Your task to perform on an android device: change notifications settings Image 0: 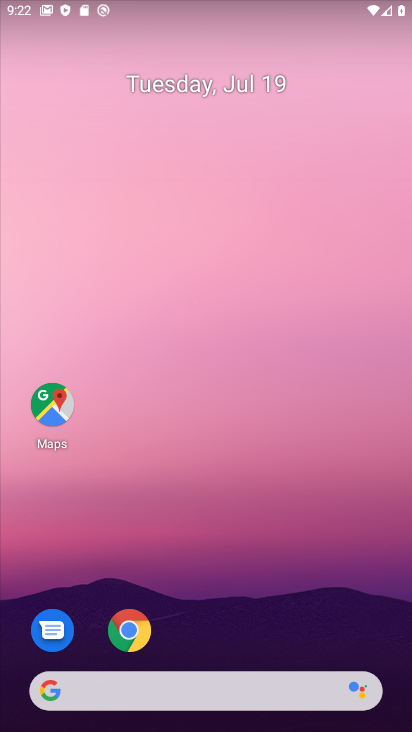
Step 0: drag from (237, 645) to (202, 9)
Your task to perform on an android device: change notifications settings Image 1: 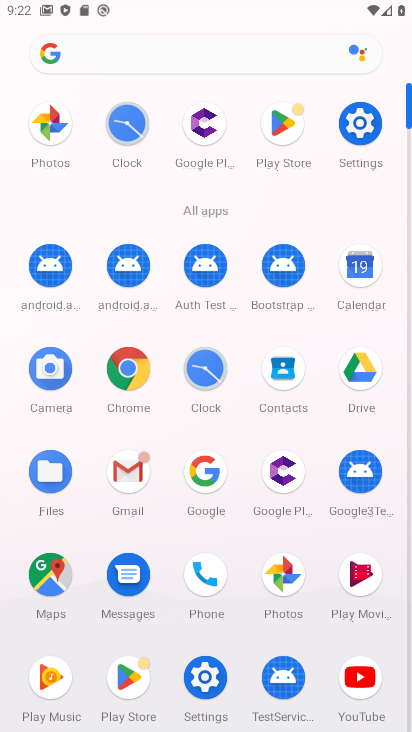
Step 1: click (203, 681)
Your task to perform on an android device: change notifications settings Image 2: 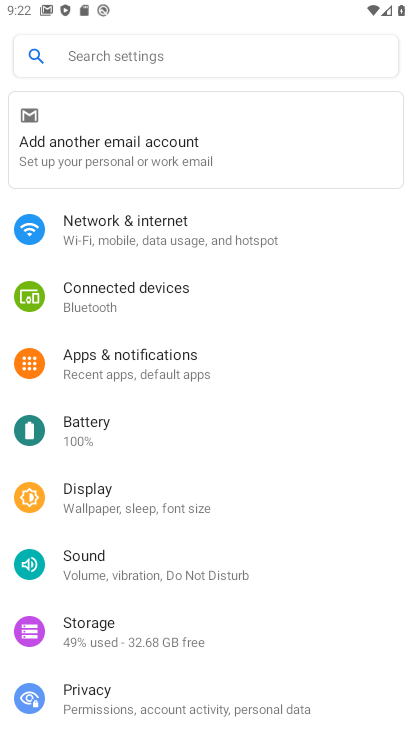
Step 2: click (163, 371)
Your task to perform on an android device: change notifications settings Image 3: 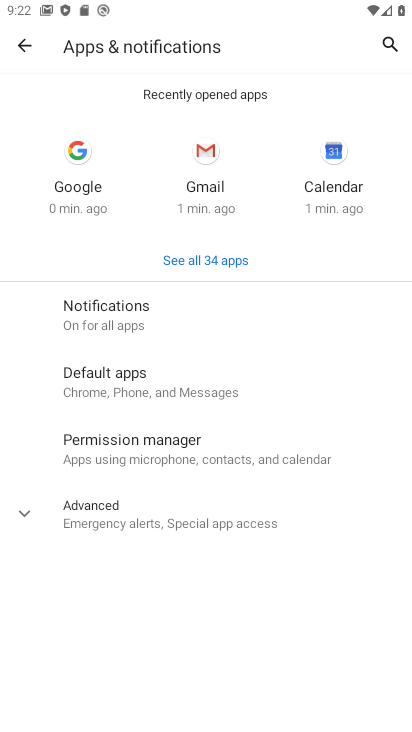
Step 3: click (132, 327)
Your task to perform on an android device: change notifications settings Image 4: 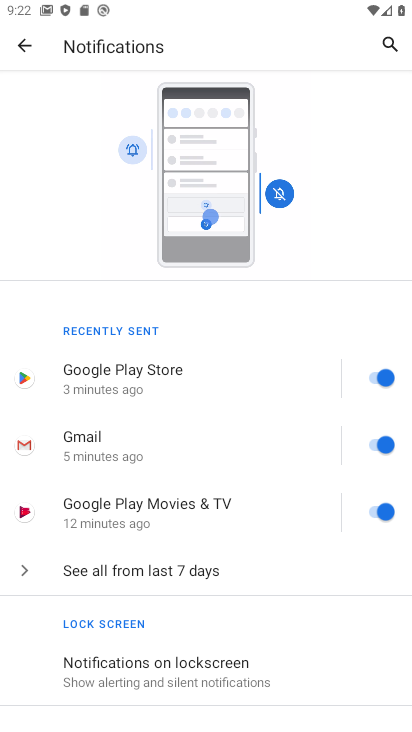
Step 4: drag from (179, 622) to (174, 565)
Your task to perform on an android device: change notifications settings Image 5: 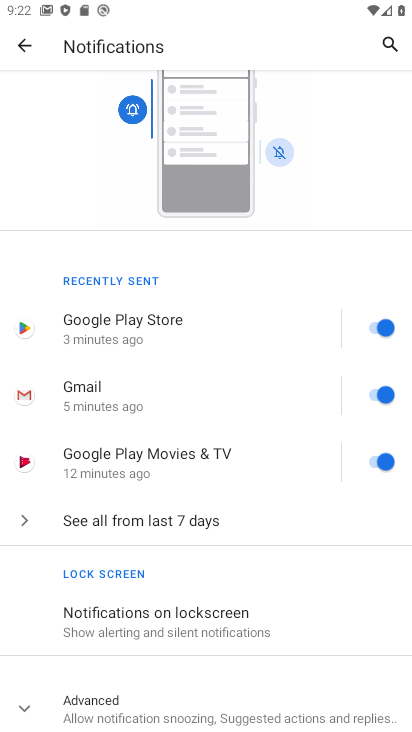
Step 5: click (132, 525)
Your task to perform on an android device: change notifications settings Image 6: 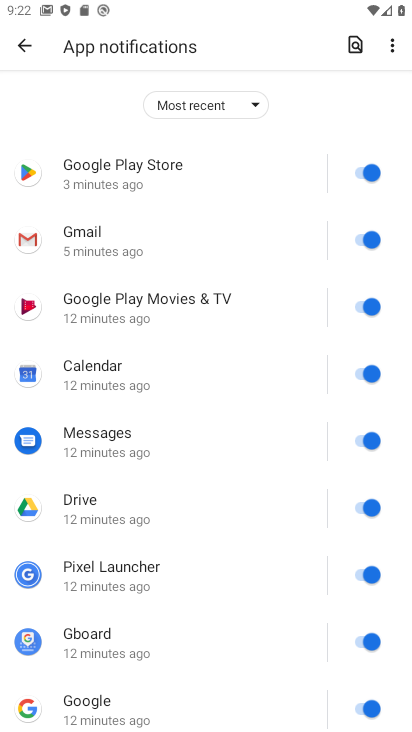
Step 6: click (360, 169)
Your task to perform on an android device: change notifications settings Image 7: 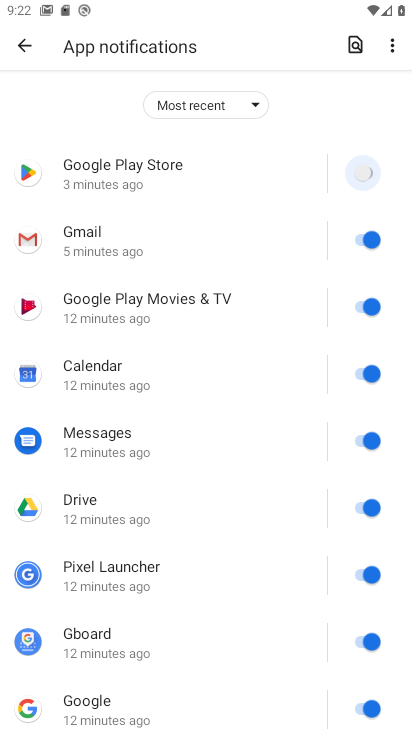
Step 7: click (351, 239)
Your task to perform on an android device: change notifications settings Image 8: 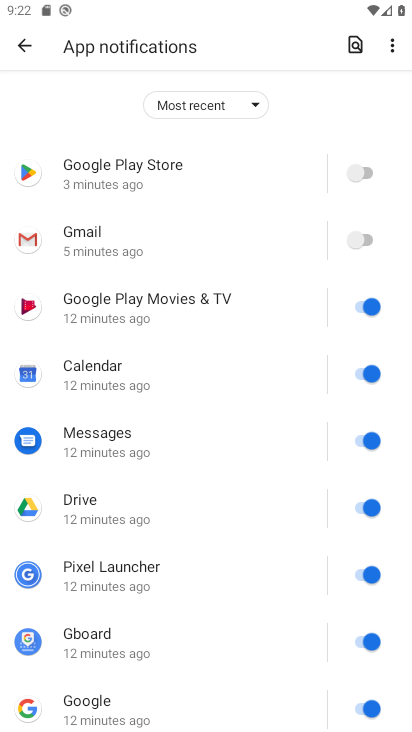
Step 8: click (352, 307)
Your task to perform on an android device: change notifications settings Image 9: 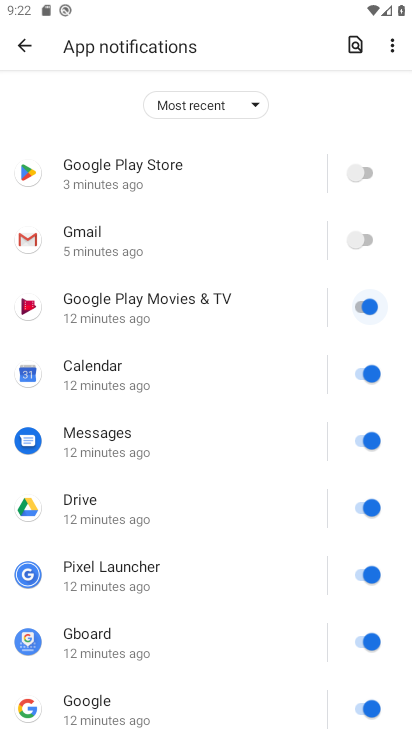
Step 9: click (351, 377)
Your task to perform on an android device: change notifications settings Image 10: 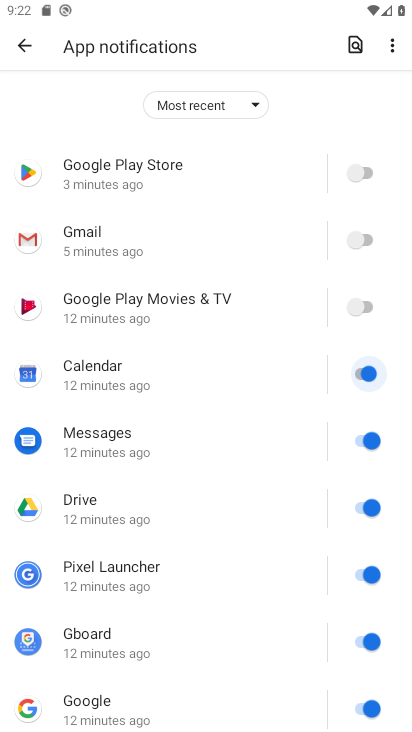
Step 10: click (346, 441)
Your task to perform on an android device: change notifications settings Image 11: 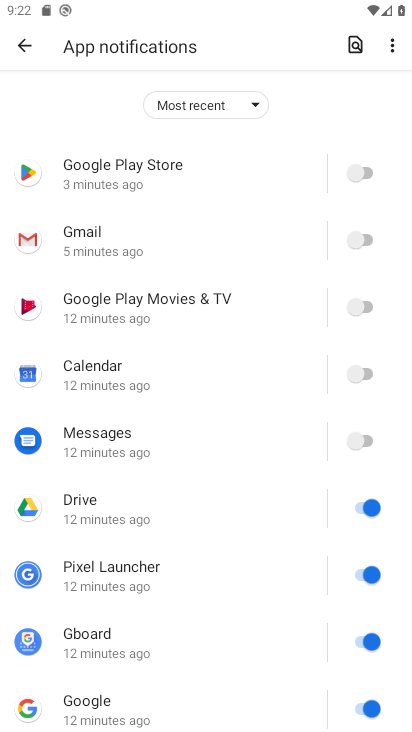
Step 11: click (348, 505)
Your task to perform on an android device: change notifications settings Image 12: 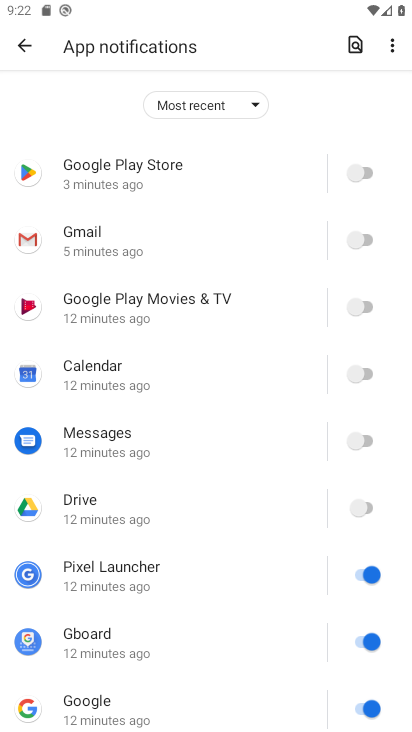
Step 12: click (342, 573)
Your task to perform on an android device: change notifications settings Image 13: 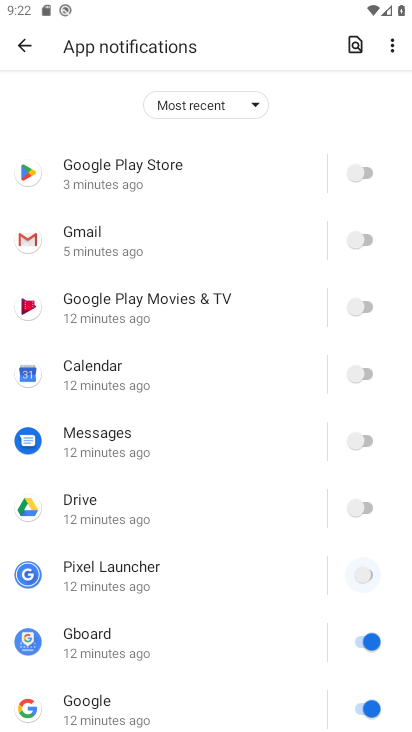
Step 13: click (353, 652)
Your task to perform on an android device: change notifications settings Image 14: 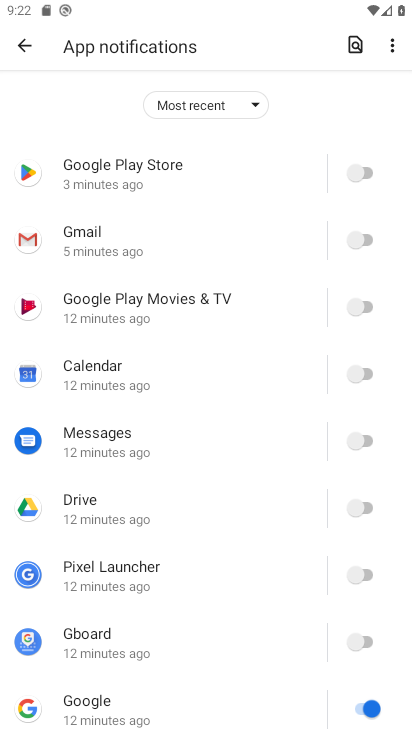
Step 14: click (358, 702)
Your task to perform on an android device: change notifications settings Image 15: 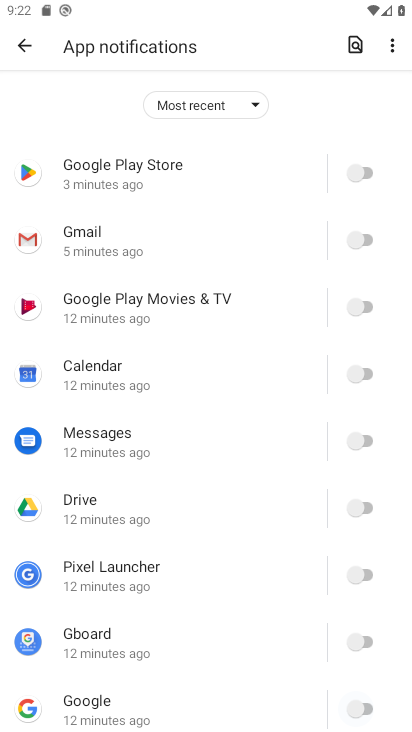
Step 15: task complete